Your task to perform on an android device: stop showing notifications on the lock screen Image 0: 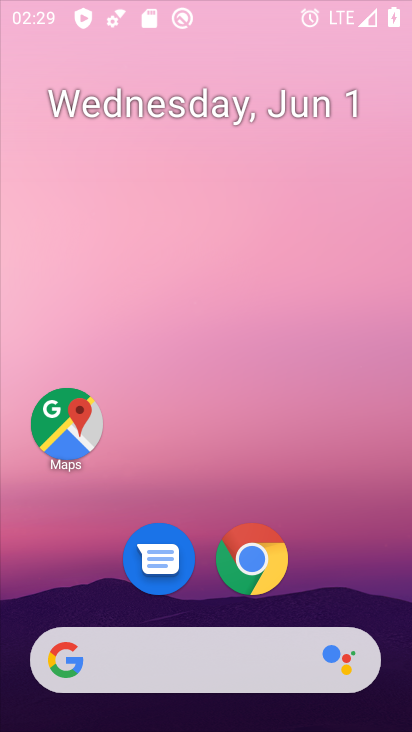
Step 0: press home button
Your task to perform on an android device: stop showing notifications on the lock screen Image 1: 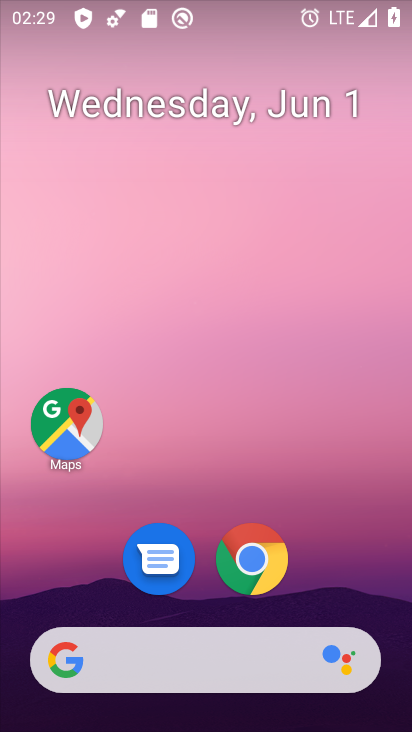
Step 1: drag from (351, 604) to (367, 124)
Your task to perform on an android device: stop showing notifications on the lock screen Image 2: 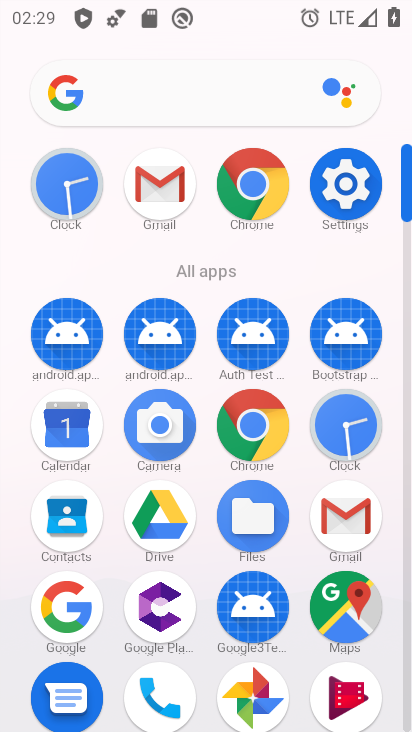
Step 2: click (346, 193)
Your task to perform on an android device: stop showing notifications on the lock screen Image 3: 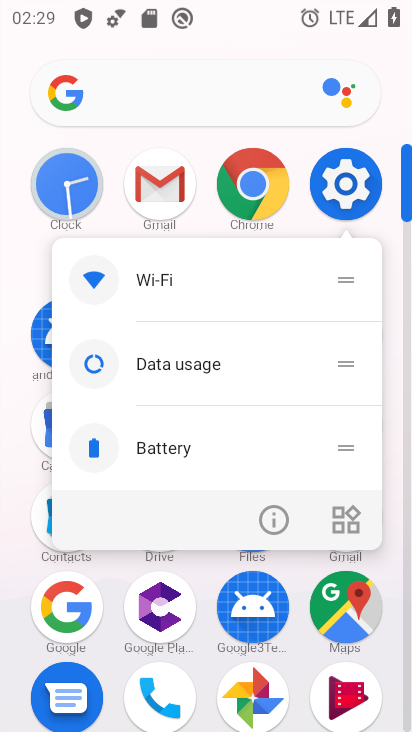
Step 3: click (346, 192)
Your task to perform on an android device: stop showing notifications on the lock screen Image 4: 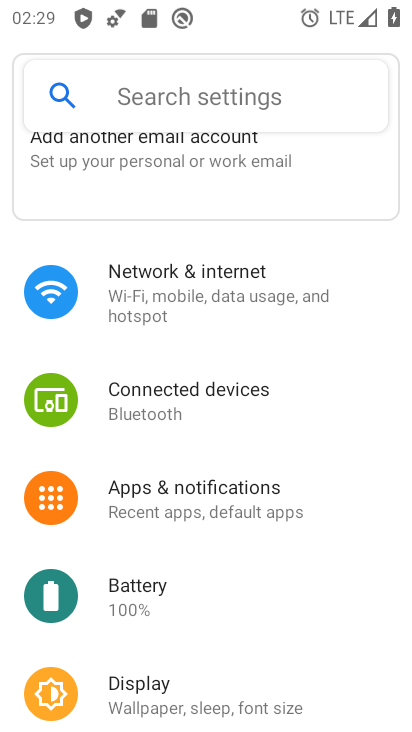
Step 4: click (164, 503)
Your task to perform on an android device: stop showing notifications on the lock screen Image 5: 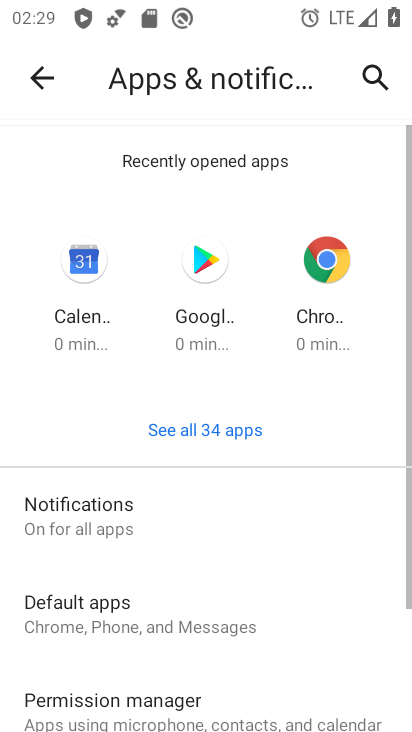
Step 5: click (86, 515)
Your task to perform on an android device: stop showing notifications on the lock screen Image 6: 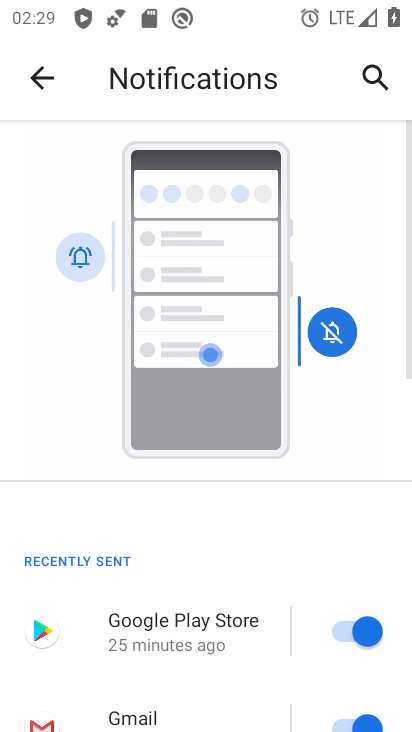
Step 6: drag from (191, 662) to (182, 263)
Your task to perform on an android device: stop showing notifications on the lock screen Image 7: 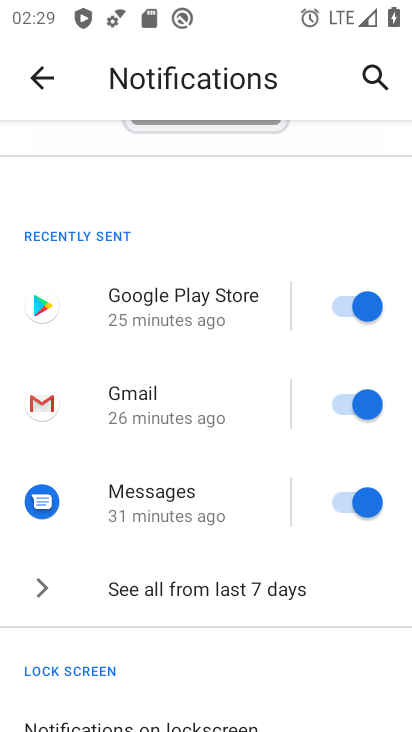
Step 7: drag from (193, 658) to (202, 406)
Your task to perform on an android device: stop showing notifications on the lock screen Image 8: 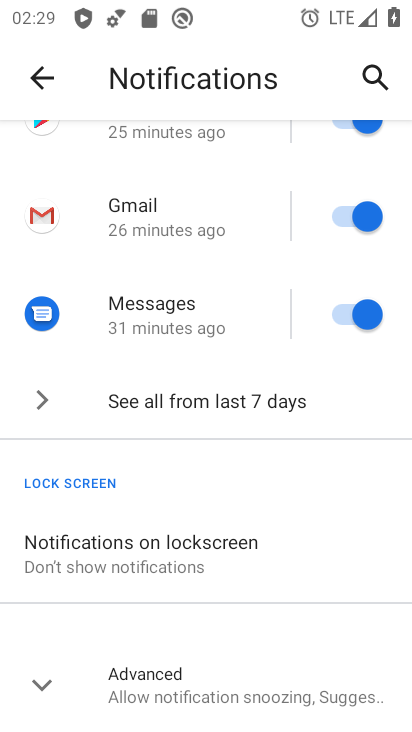
Step 8: click (111, 557)
Your task to perform on an android device: stop showing notifications on the lock screen Image 9: 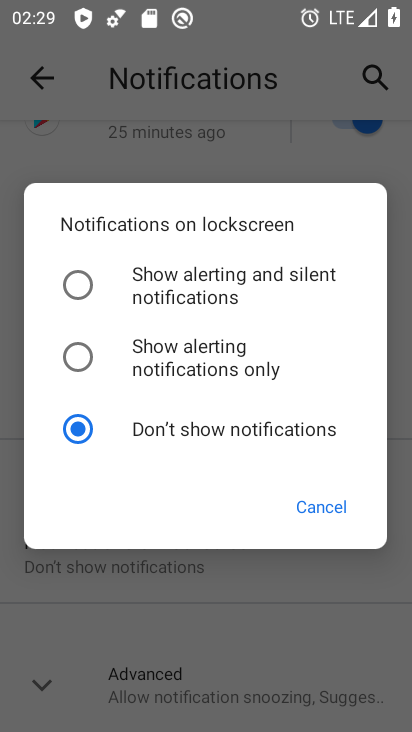
Step 9: task complete